Your task to perform on an android device: add a contact in the contacts app Image 0: 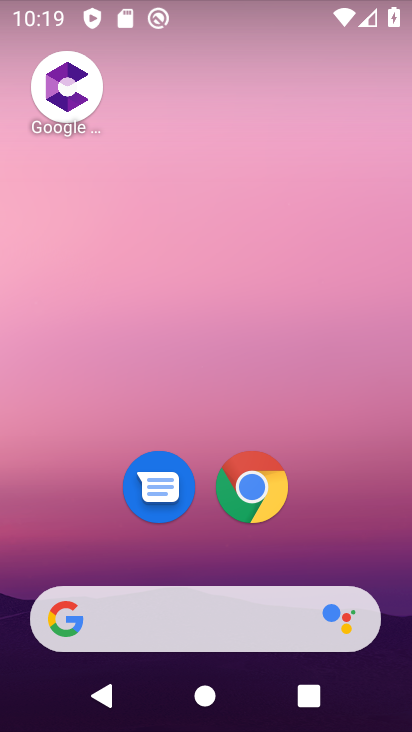
Step 0: drag from (262, 673) to (206, 85)
Your task to perform on an android device: add a contact in the contacts app Image 1: 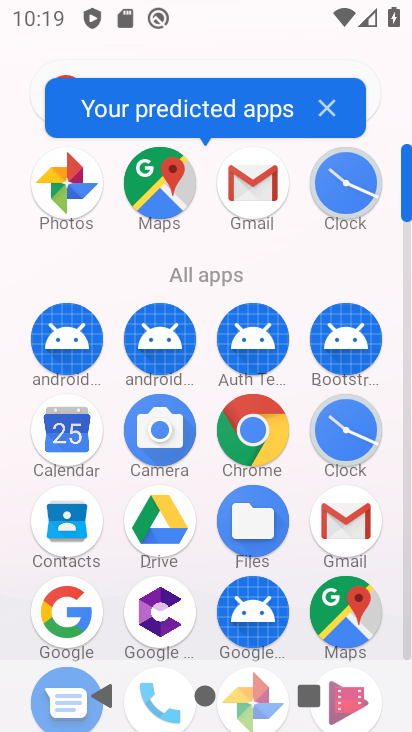
Step 1: click (87, 527)
Your task to perform on an android device: add a contact in the contacts app Image 2: 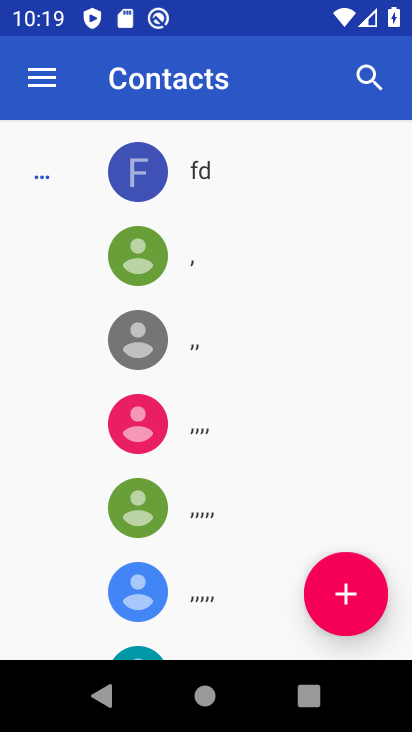
Step 2: click (337, 593)
Your task to perform on an android device: add a contact in the contacts app Image 3: 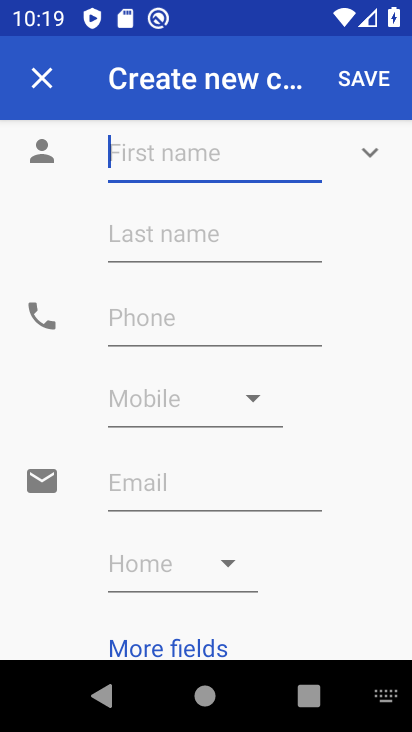
Step 3: type ""
Your task to perform on an android device: add a contact in the contacts app Image 4: 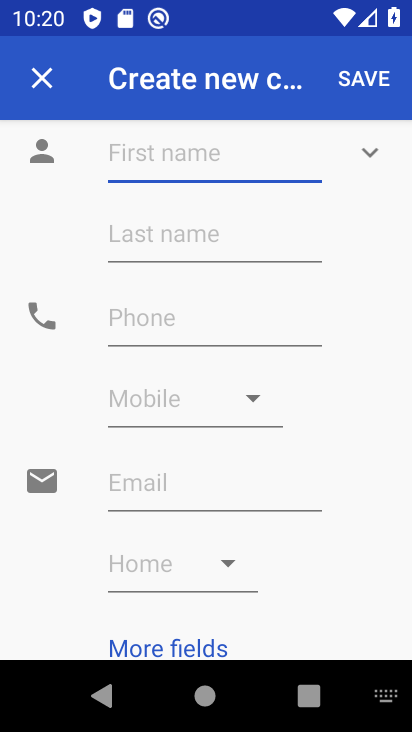
Step 4: type "hgfyfy"
Your task to perform on an android device: add a contact in the contacts app Image 5: 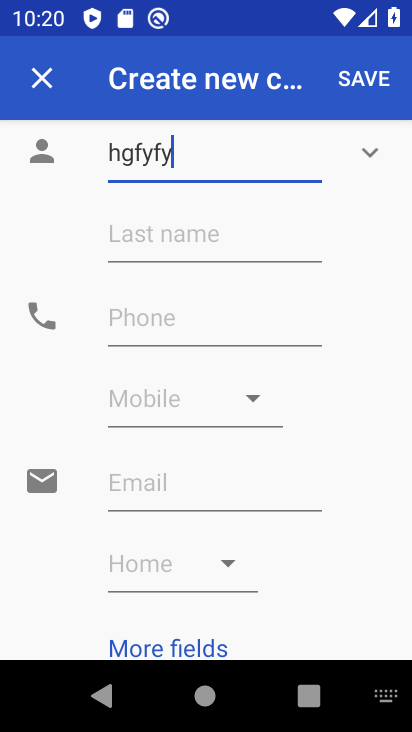
Step 5: click (202, 323)
Your task to perform on an android device: add a contact in the contacts app Image 6: 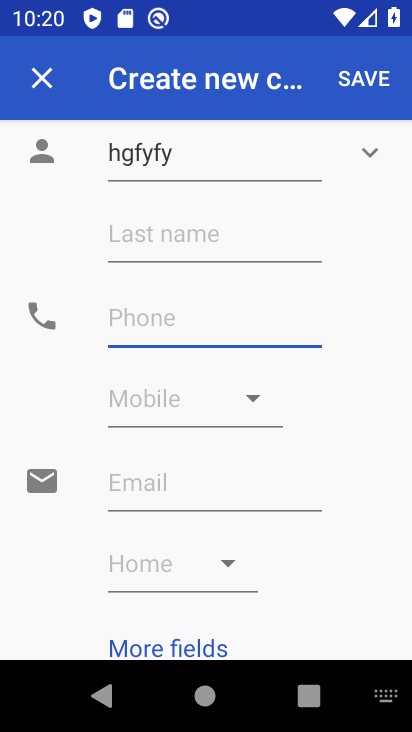
Step 6: type "9877655556"
Your task to perform on an android device: add a contact in the contacts app Image 7: 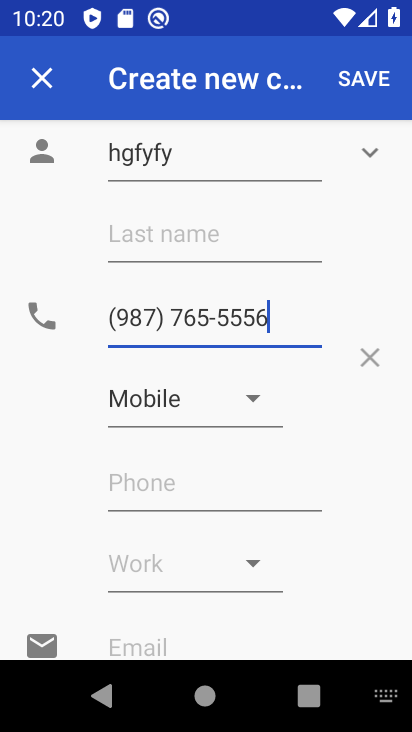
Step 7: click (376, 75)
Your task to perform on an android device: add a contact in the contacts app Image 8: 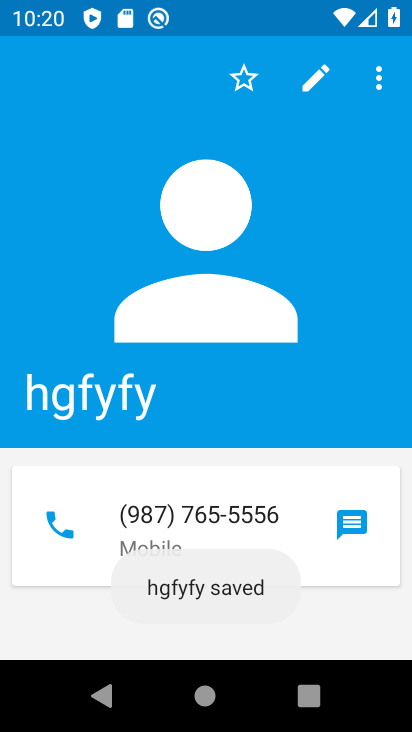
Step 8: task complete